Your task to perform on an android device: Do I have any events tomorrow? Image 0: 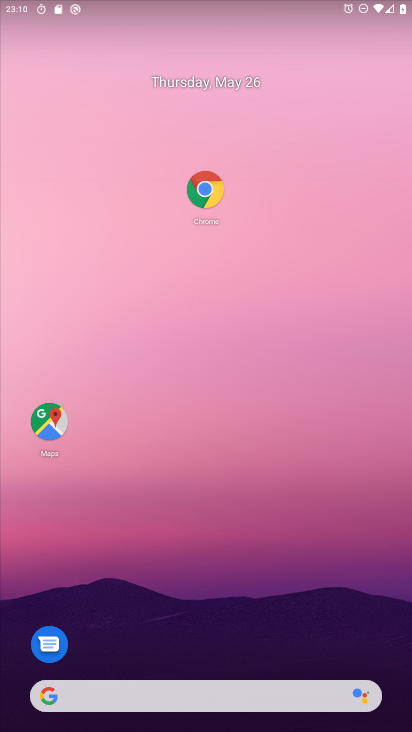
Step 0: drag from (145, 595) to (152, 29)
Your task to perform on an android device: Do I have any events tomorrow? Image 1: 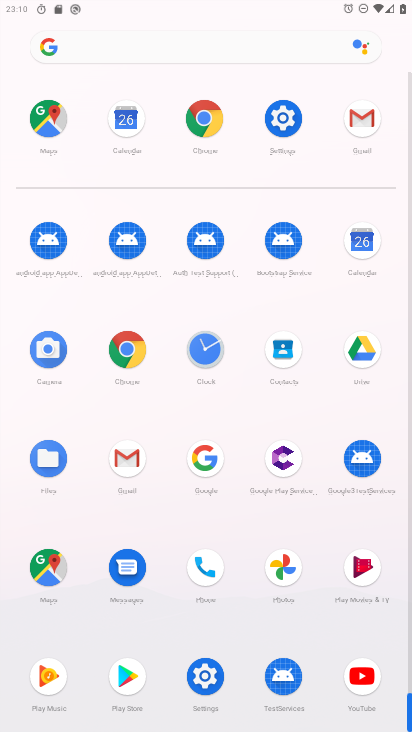
Step 1: click (364, 244)
Your task to perform on an android device: Do I have any events tomorrow? Image 2: 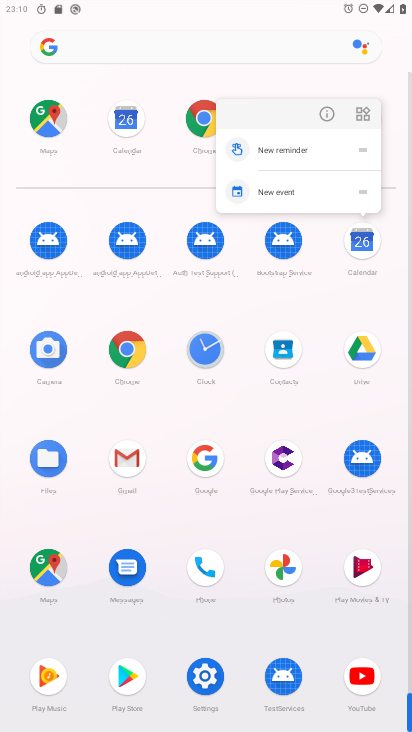
Step 2: click (320, 109)
Your task to perform on an android device: Do I have any events tomorrow? Image 3: 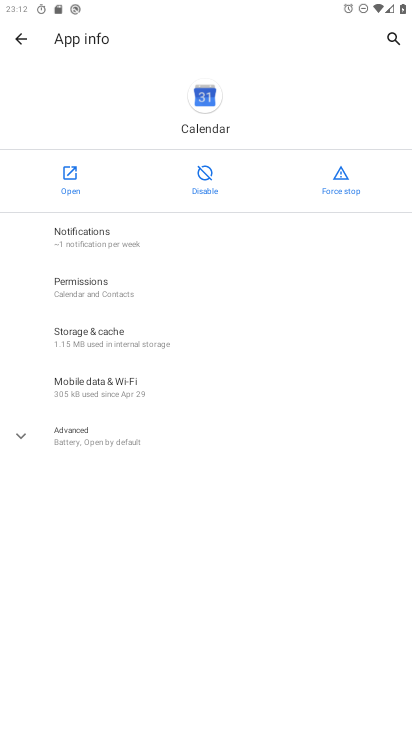
Step 3: click (77, 174)
Your task to perform on an android device: Do I have any events tomorrow? Image 4: 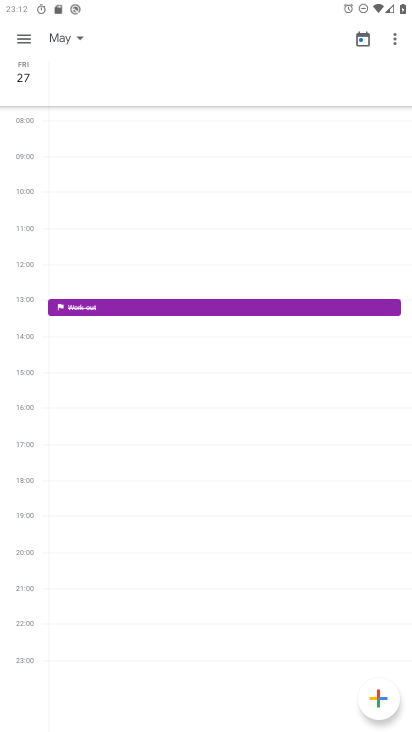
Step 4: click (71, 31)
Your task to perform on an android device: Do I have any events tomorrow? Image 5: 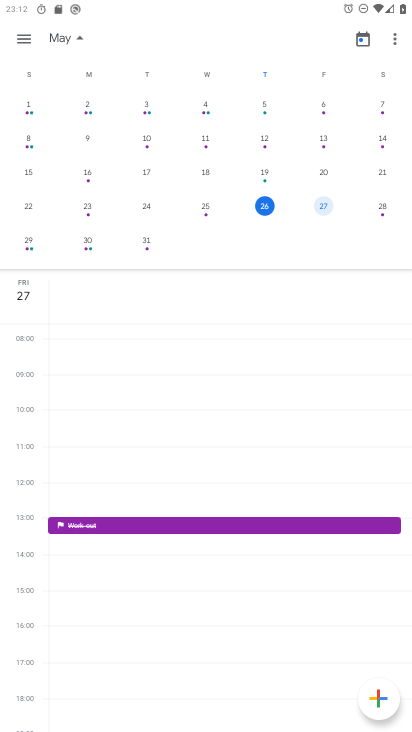
Step 5: click (71, 31)
Your task to perform on an android device: Do I have any events tomorrow? Image 6: 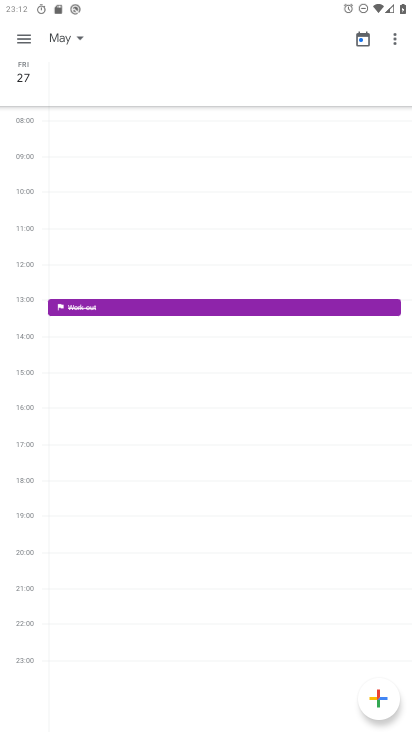
Step 6: click (71, 31)
Your task to perform on an android device: Do I have any events tomorrow? Image 7: 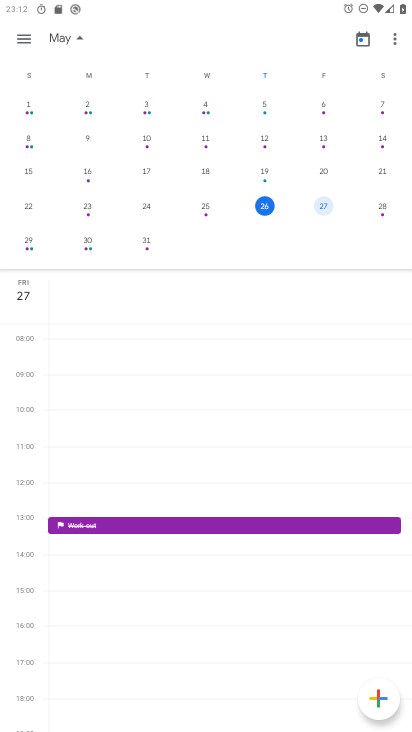
Step 7: click (325, 201)
Your task to perform on an android device: Do I have any events tomorrow? Image 8: 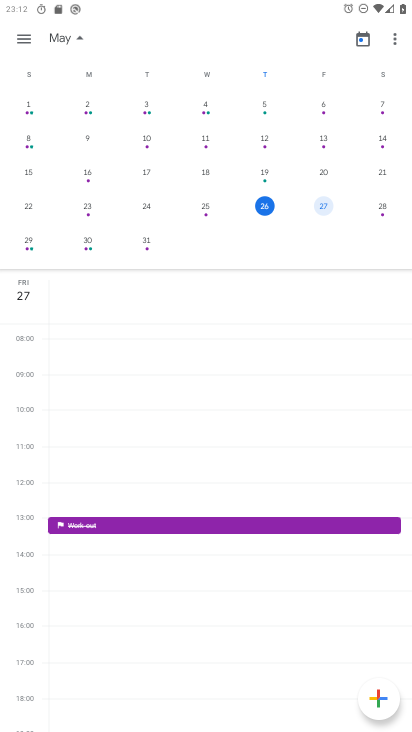
Step 8: task complete